Your task to perform on an android device: What's the weather? Image 0: 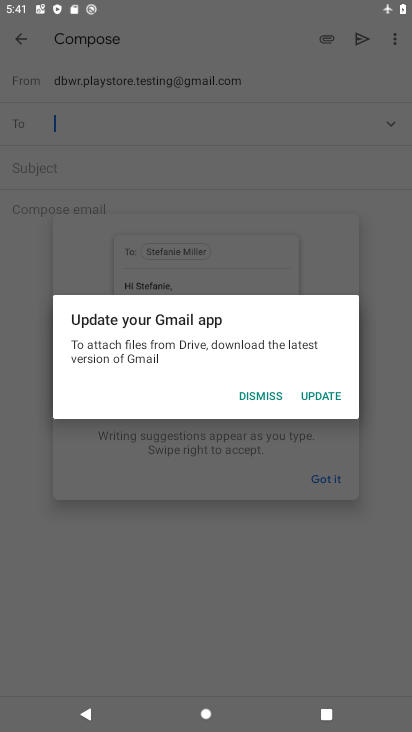
Step 0: press back button
Your task to perform on an android device: What's the weather? Image 1: 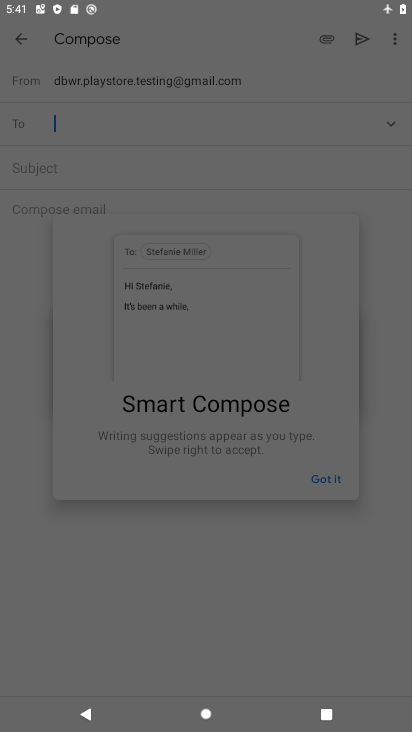
Step 1: press home button
Your task to perform on an android device: What's the weather? Image 2: 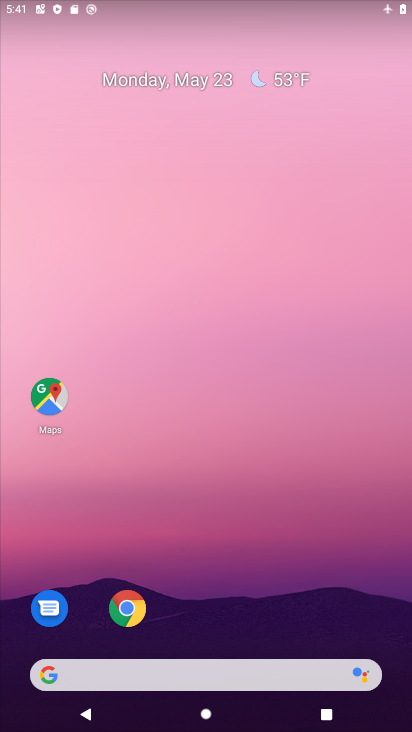
Step 2: click (156, 660)
Your task to perform on an android device: What's the weather? Image 3: 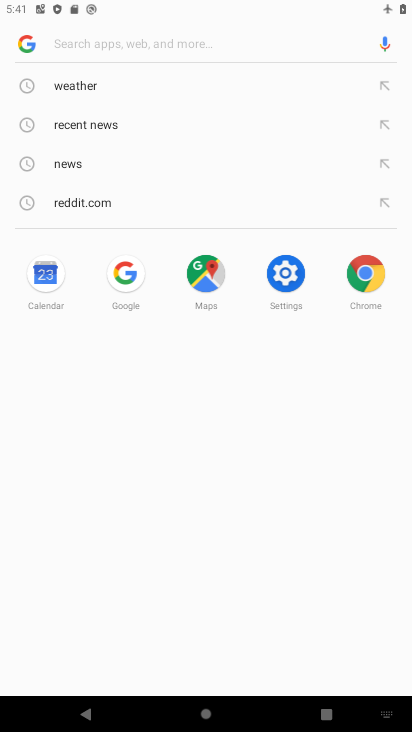
Step 3: click (90, 85)
Your task to perform on an android device: What's the weather? Image 4: 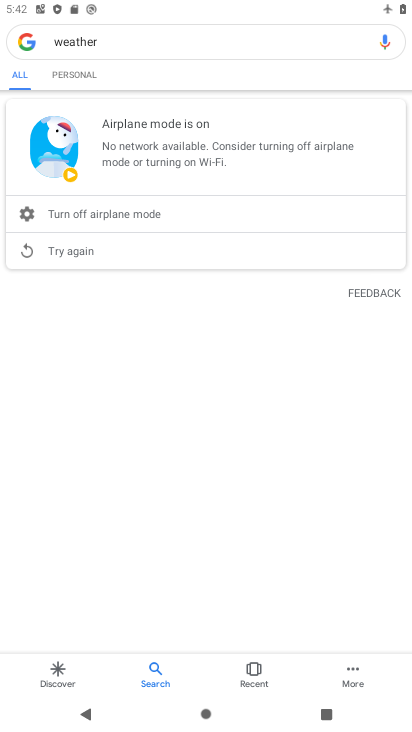
Step 4: task complete